Your task to perform on an android device: Play the last video I watched on Youtube Image 0: 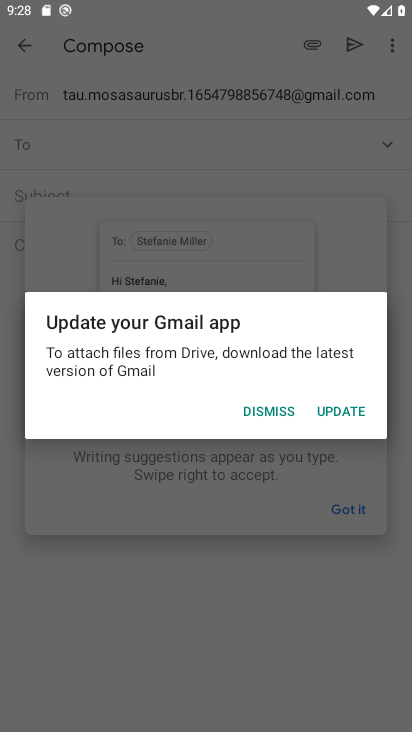
Step 0: press home button
Your task to perform on an android device: Play the last video I watched on Youtube Image 1: 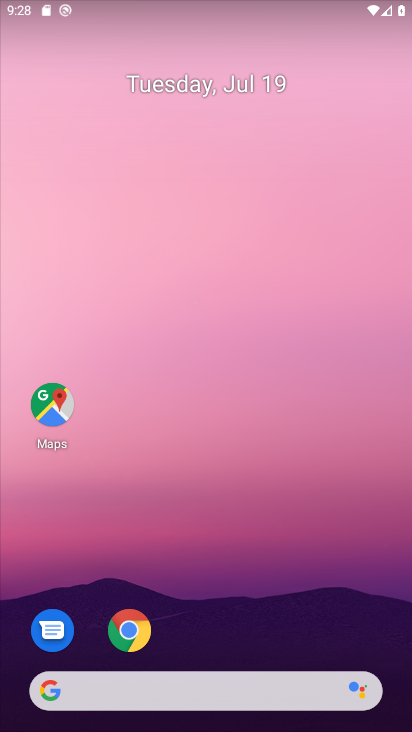
Step 1: drag from (214, 656) to (231, 222)
Your task to perform on an android device: Play the last video I watched on Youtube Image 2: 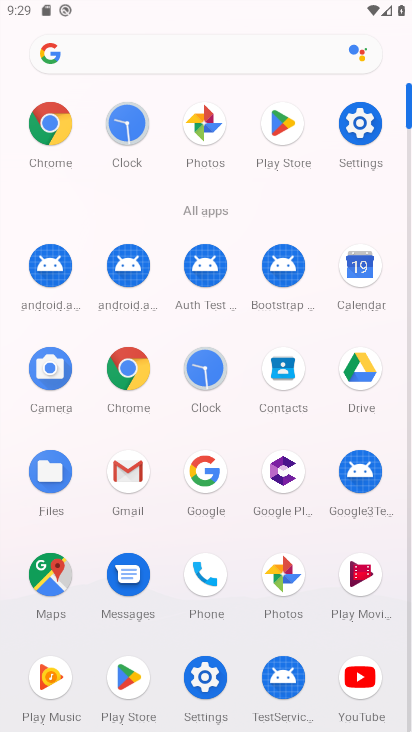
Step 2: click (361, 667)
Your task to perform on an android device: Play the last video I watched on Youtube Image 3: 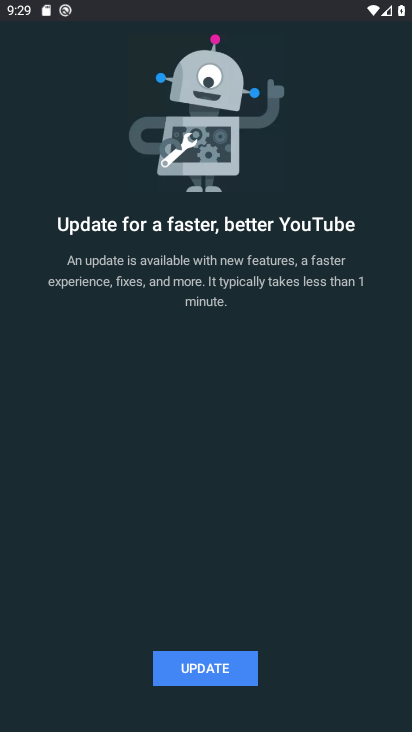
Step 3: click (207, 670)
Your task to perform on an android device: Play the last video I watched on Youtube Image 4: 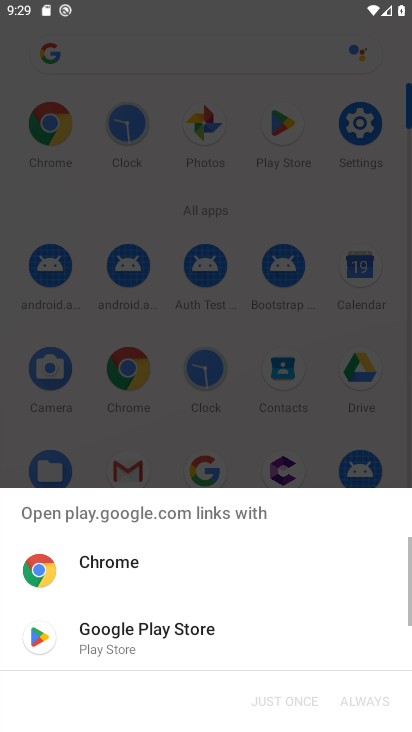
Step 4: click (151, 634)
Your task to perform on an android device: Play the last video I watched on Youtube Image 5: 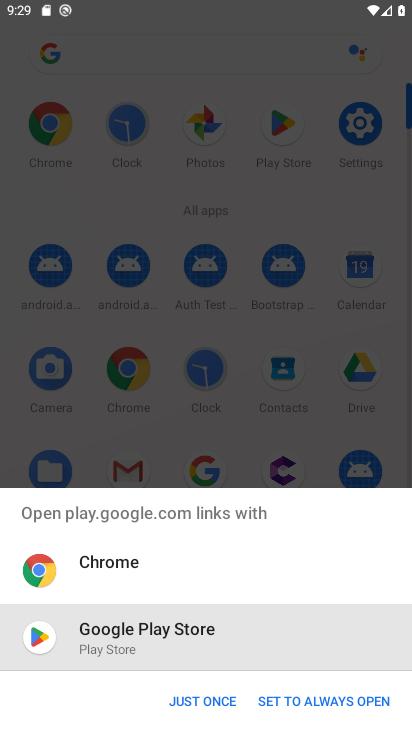
Step 5: click (195, 704)
Your task to perform on an android device: Play the last video I watched on Youtube Image 6: 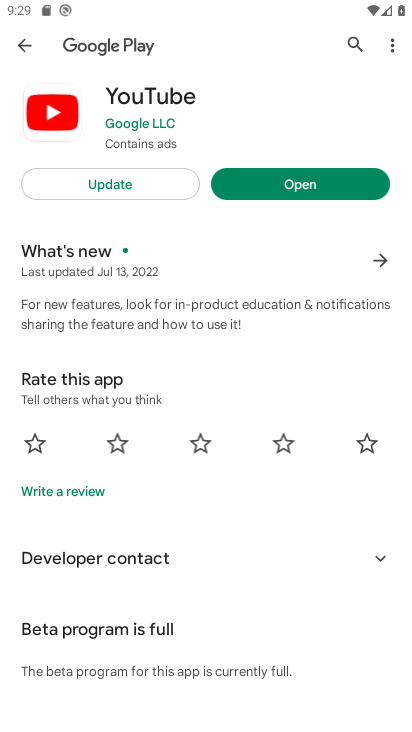
Step 6: click (120, 180)
Your task to perform on an android device: Play the last video I watched on Youtube Image 7: 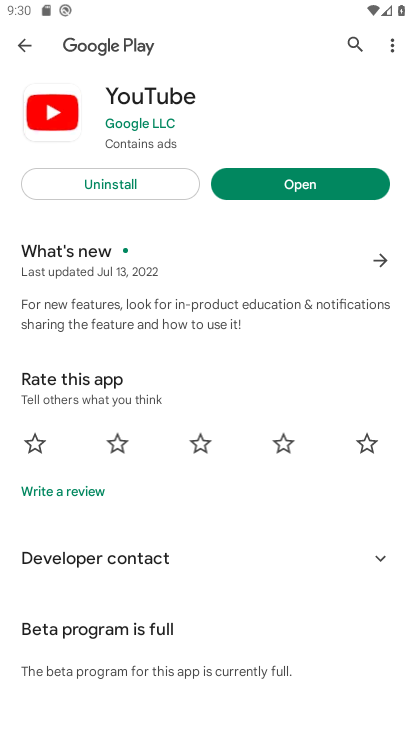
Step 7: click (299, 195)
Your task to perform on an android device: Play the last video I watched on Youtube Image 8: 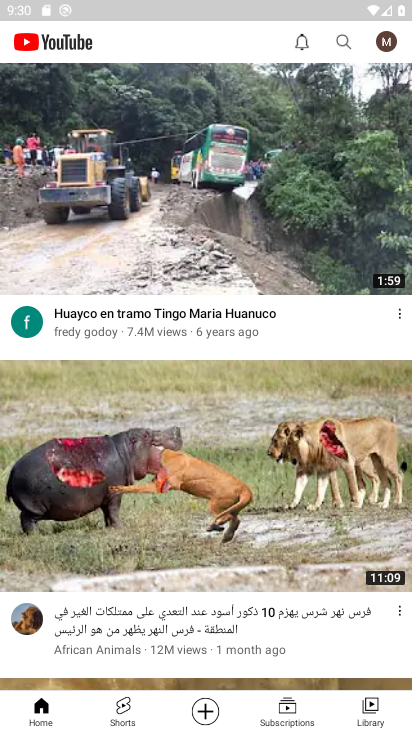
Step 8: click (362, 709)
Your task to perform on an android device: Play the last video I watched on Youtube Image 9: 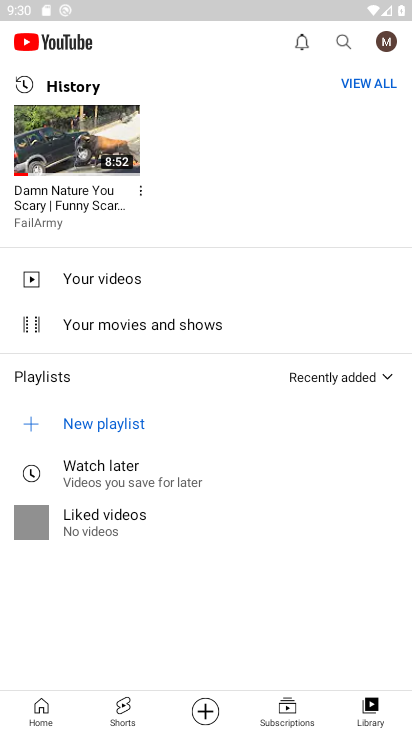
Step 9: click (62, 138)
Your task to perform on an android device: Play the last video I watched on Youtube Image 10: 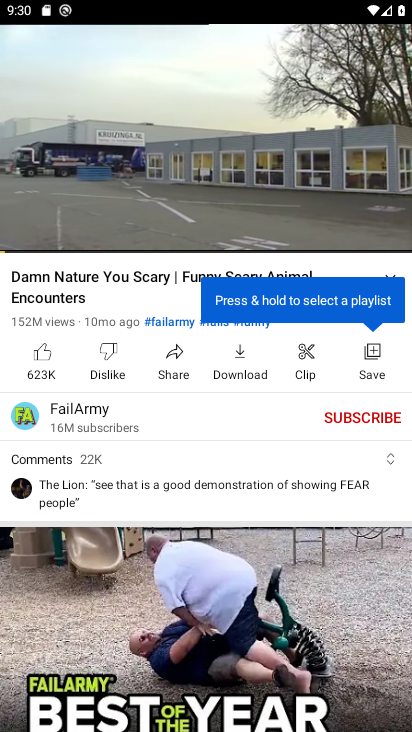
Step 10: task complete